Your task to perform on an android device: toggle pop-ups in chrome Image 0: 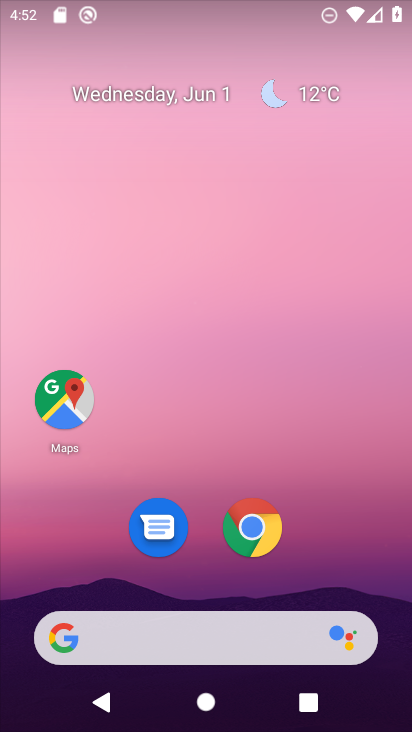
Step 0: click (260, 509)
Your task to perform on an android device: toggle pop-ups in chrome Image 1: 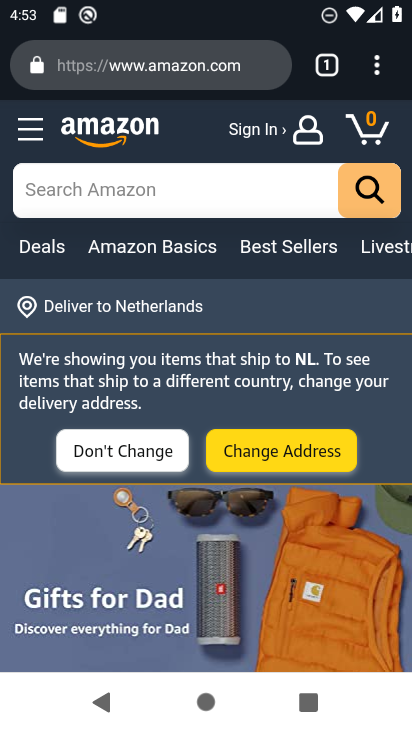
Step 1: click (393, 52)
Your task to perform on an android device: toggle pop-ups in chrome Image 2: 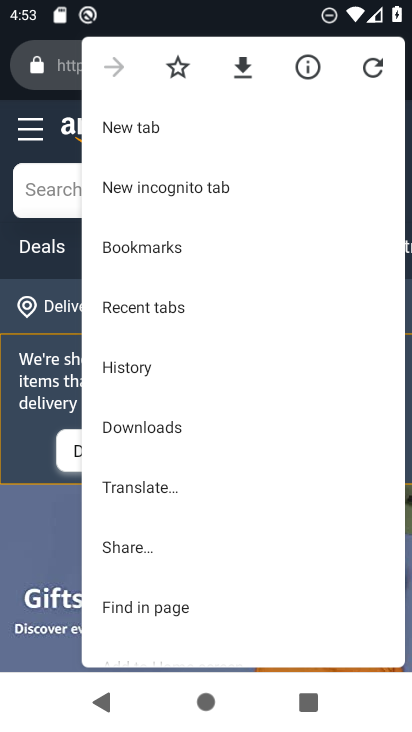
Step 2: drag from (158, 614) to (179, 150)
Your task to perform on an android device: toggle pop-ups in chrome Image 3: 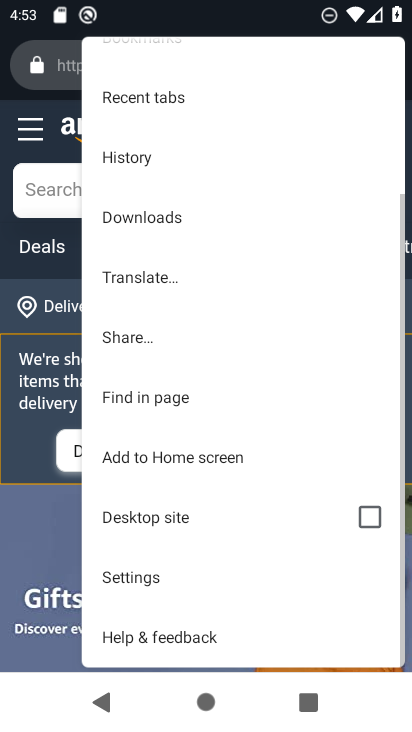
Step 3: click (182, 571)
Your task to perform on an android device: toggle pop-ups in chrome Image 4: 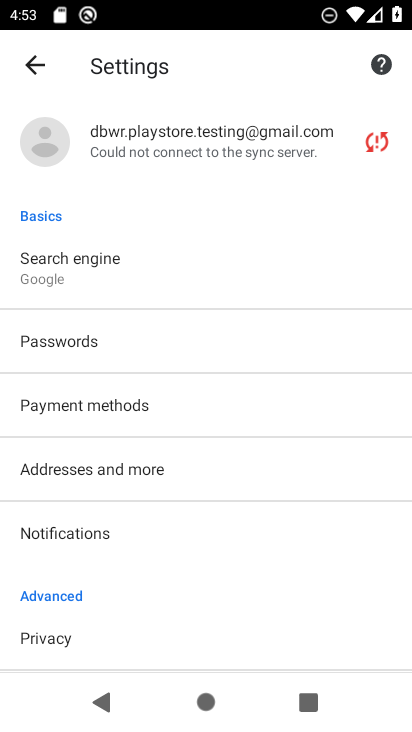
Step 4: drag from (145, 664) to (188, 185)
Your task to perform on an android device: toggle pop-ups in chrome Image 5: 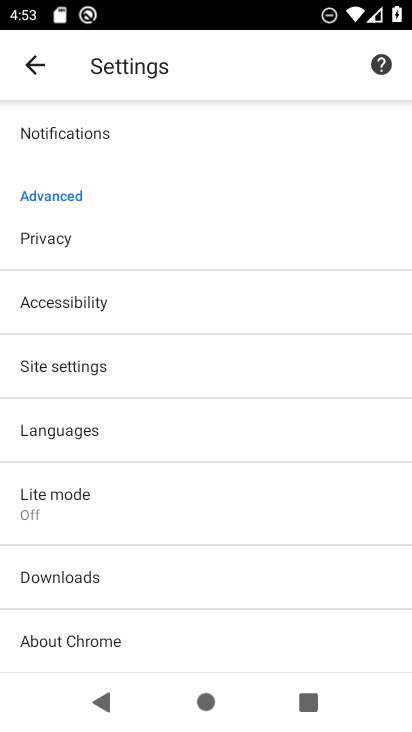
Step 5: drag from (155, 625) to (261, 107)
Your task to perform on an android device: toggle pop-ups in chrome Image 6: 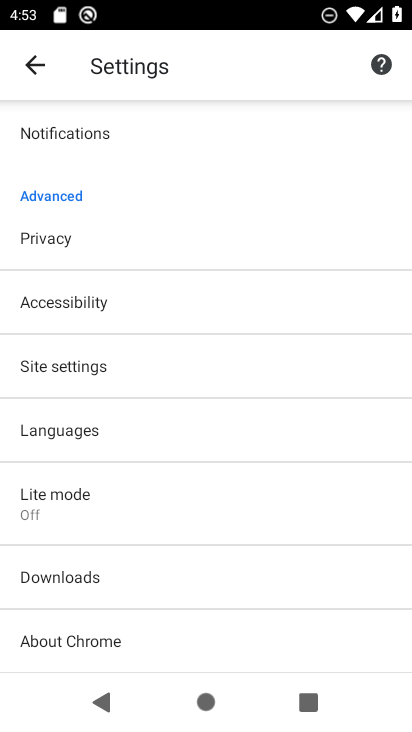
Step 6: drag from (176, 510) to (245, 15)
Your task to perform on an android device: toggle pop-ups in chrome Image 7: 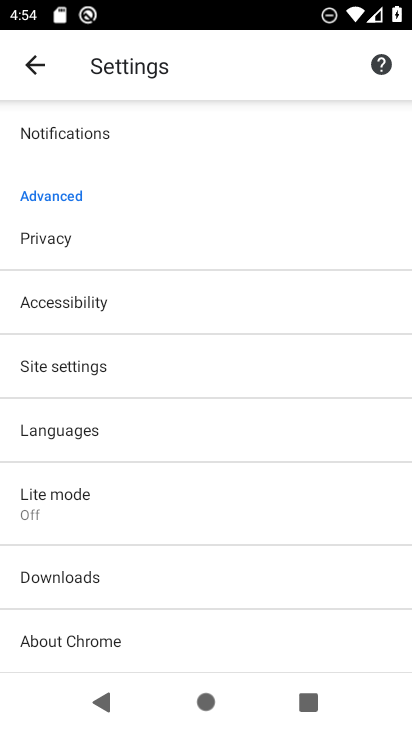
Step 7: click (92, 361)
Your task to perform on an android device: toggle pop-ups in chrome Image 8: 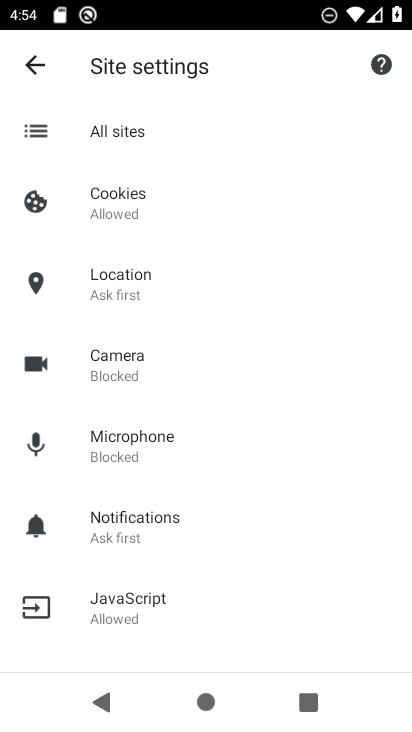
Step 8: drag from (156, 583) to (198, 125)
Your task to perform on an android device: toggle pop-ups in chrome Image 9: 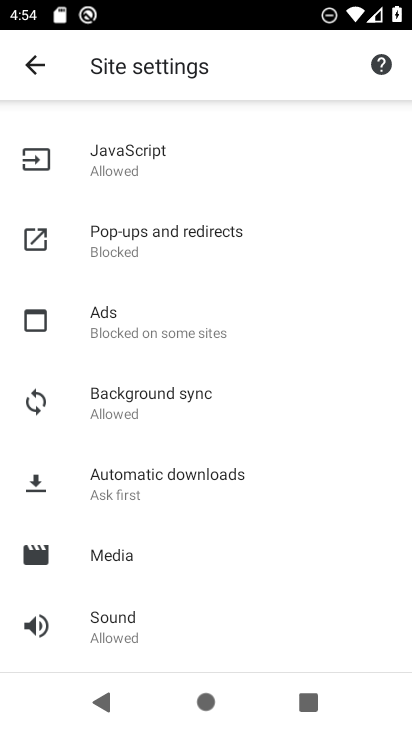
Step 9: click (134, 240)
Your task to perform on an android device: toggle pop-ups in chrome Image 10: 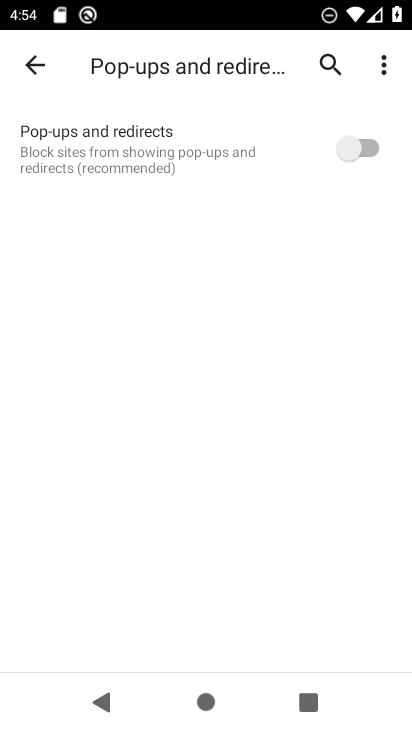
Step 10: click (375, 151)
Your task to perform on an android device: toggle pop-ups in chrome Image 11: 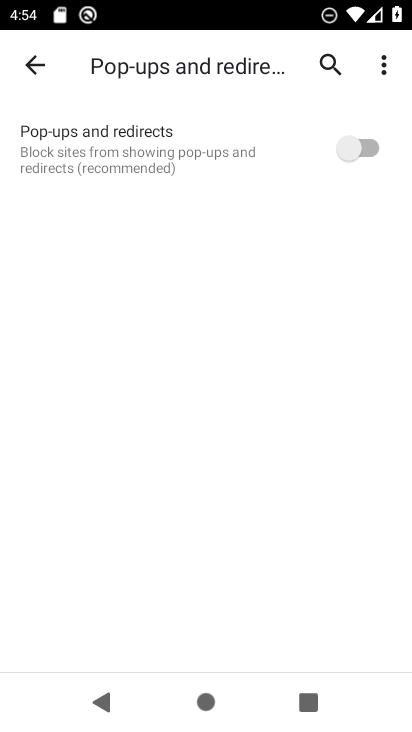
Step 11: click (375, 151)
Your task to perform on an android device: toggle pop-ups in chrome Image 12: 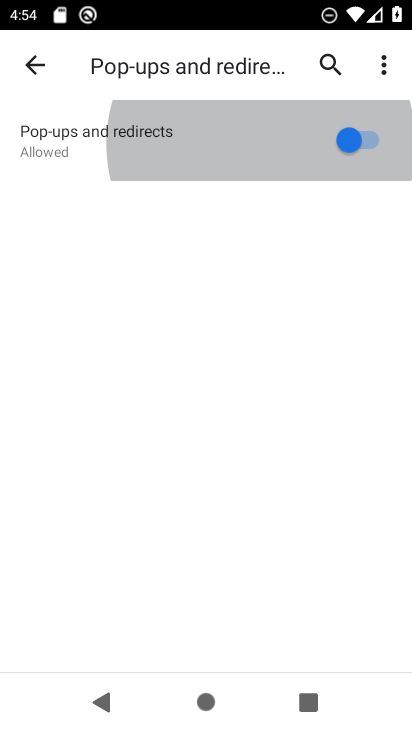
Step 12: click (375, 151)
Your task to perform on an android device: toggle pop-ups in chrome Image 13: 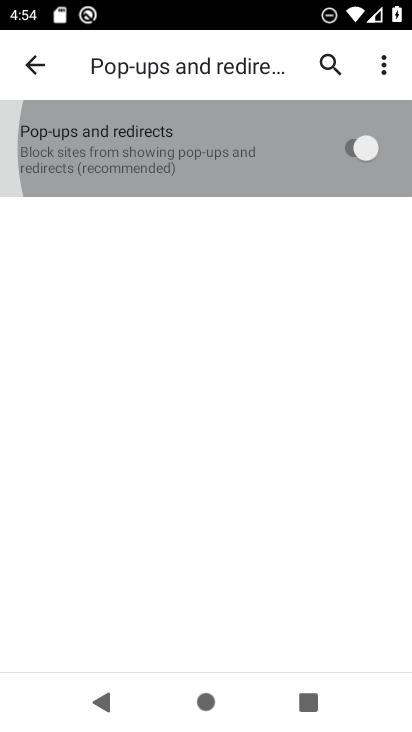
Step 13: click (375, 151)
Your task to perform on an android device: toggle pop-ups in chrome Image 14: 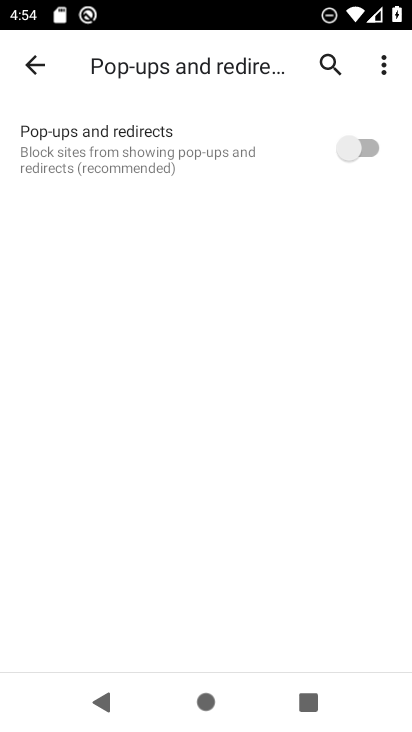
Step 14: click (375, 151)
Your task to perform on an android device: toggle pop-ups in chrome Image 15: 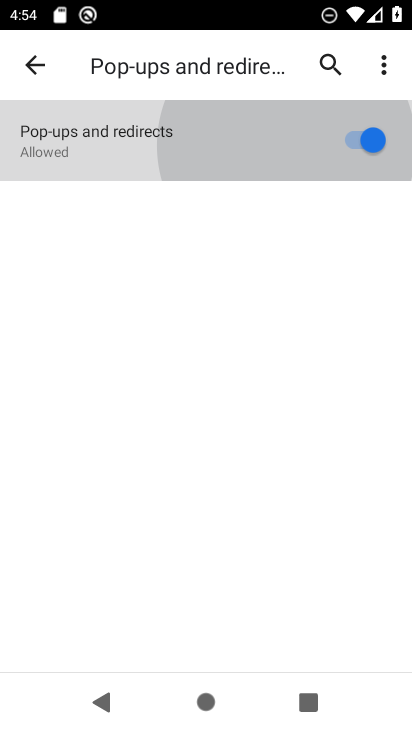
Step 15: click (375, 151)
Your task to perform on an android device: toggle pop-ups in chrome Image 16: 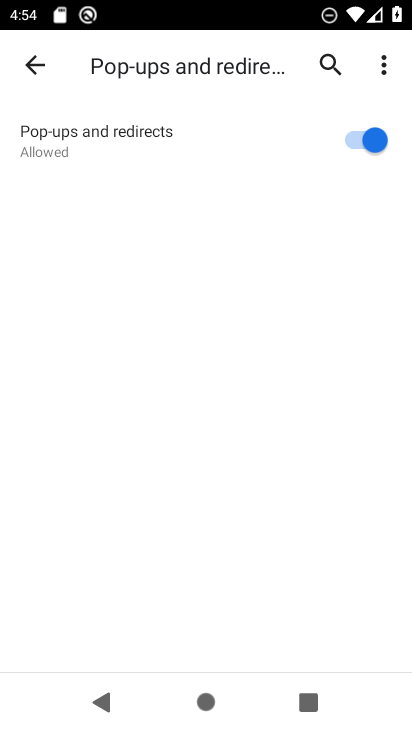
Step 16: click (375, 151)
Your task to perform on an android device: toggle pop-ups in chrome Image 17: 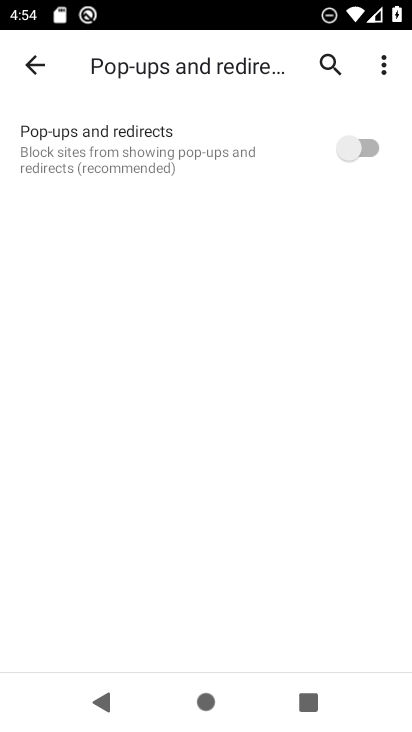
Step 17: task complete